Your task to perform on an android device: Search for hotels in Boston Image 0: 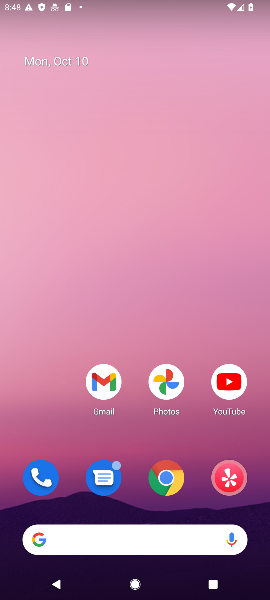
Step 0: drag from (127, 511) to (69, 79)
Your task to perform on an android device: Search for hotels in Boston Image 1: 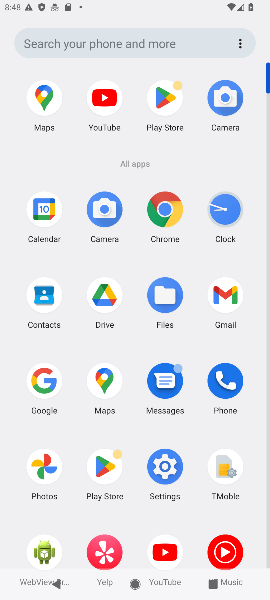
Step 1: click (98, 387)
Your task to perform on an android device: Search for hotels in Boston Image 2: 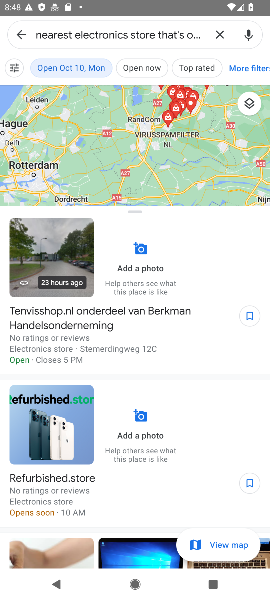
Step 2: click (122, 36)
Your task to perform on an android device: Search for hotels in Boston Image 3: 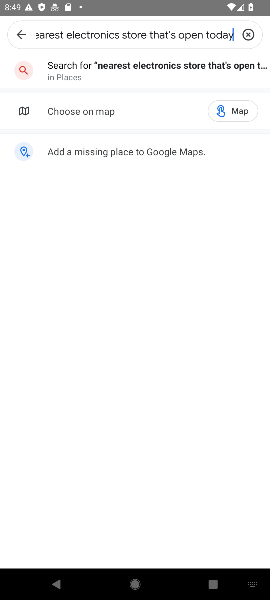
Step 3: click (245, 35)
Your task to perform on an android device: Search for hotels in Boston Image 4: 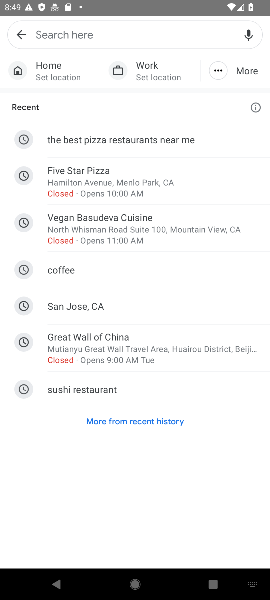
Step 4: type "hotels in Boston"
Your task to perform on an android device: Search for hotels in Boston Image 5: 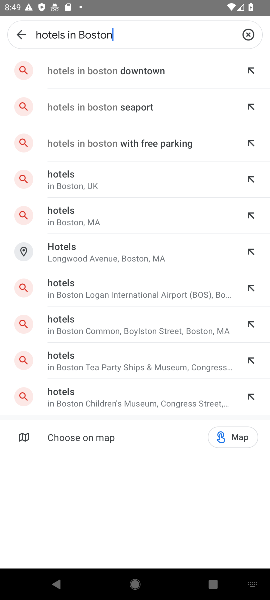
Step 5: click (79, 76)
Your task to perform on an android device: Search for hotels in Boston Image 6: 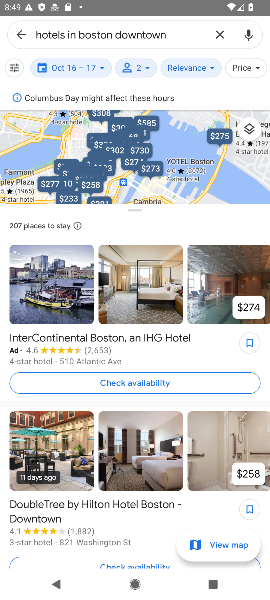
Step 6: task complete